Your task to perform on an android device: turn off location Image 0: 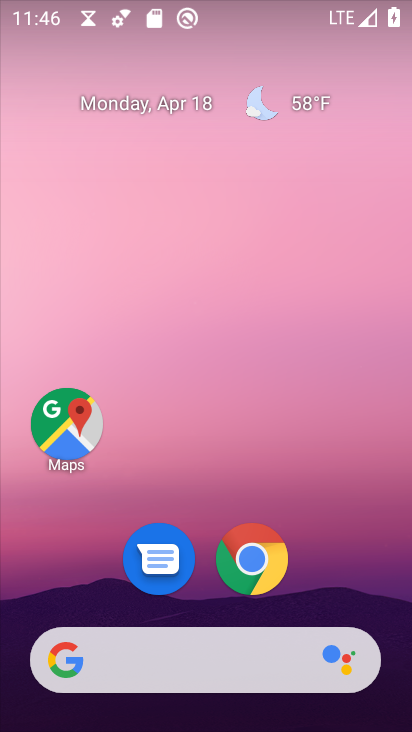
Step 0: drag from (267, 372) to (219, 43)
Your task to perform on an android device: turn off location Image 1: 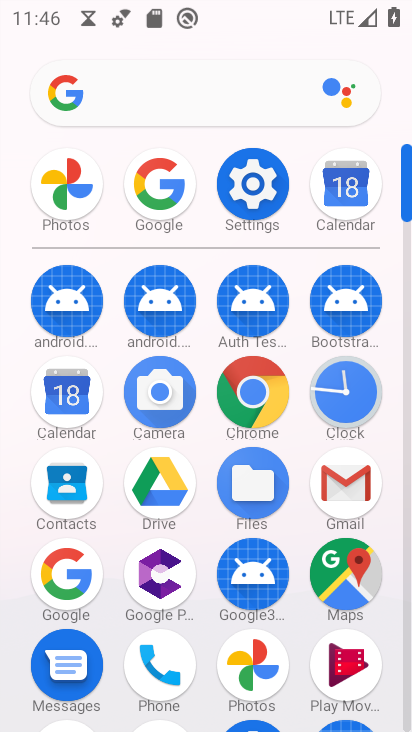
Step 1: click (258, 176)
Your task to perform on an android device: turn off location Image 2: 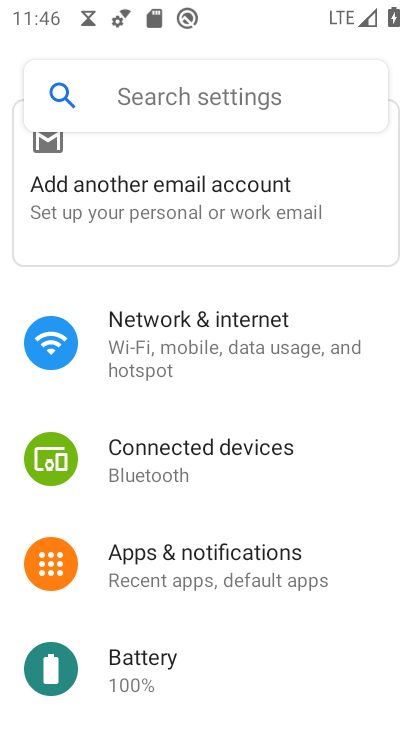
Step 2: drag from (137, 655) to (99, 162)
Your task to perform on an android device: turn off location Image 3: 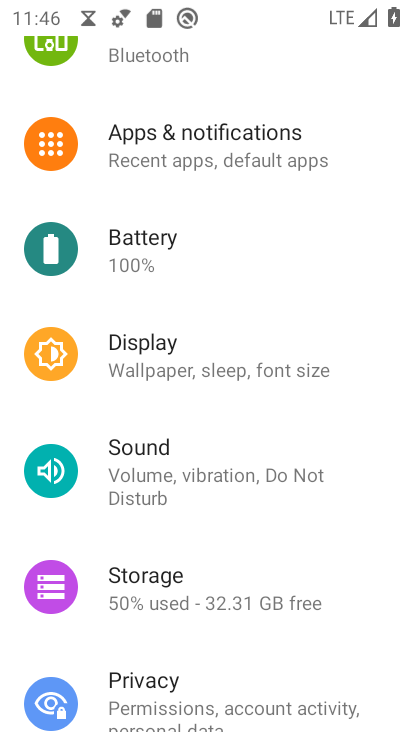
Step 3: drag from (150, 661) to (148, 175)
Your task to perform on an android device: turn off location Image 4: 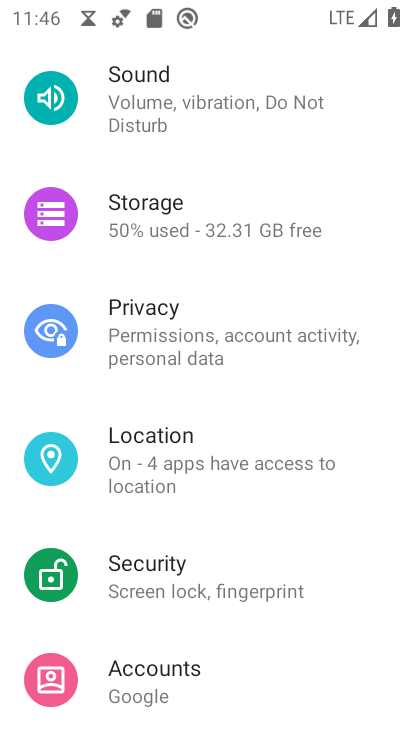
Step 4: click (146, 437)
Your task to perform on an android device: turn off location Image 5: 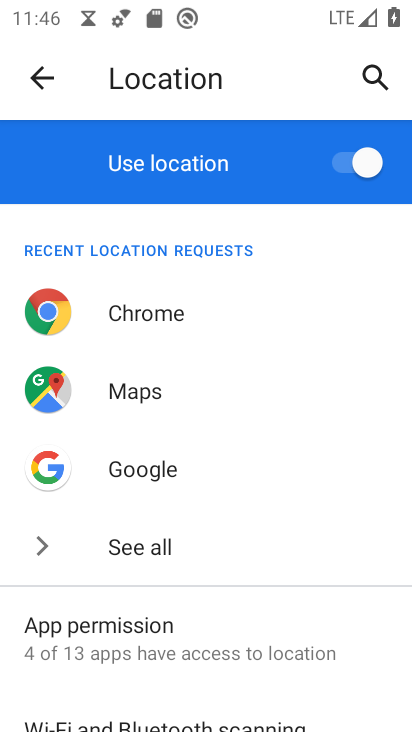
Step 5: click (368, 162)
Your task to perform on an android device: turn off location Image 6: 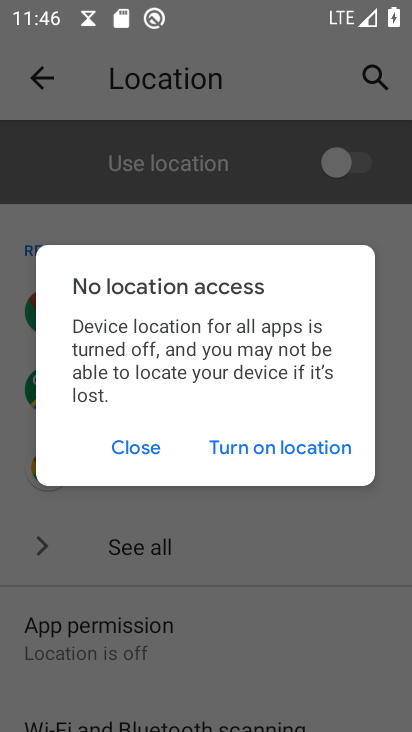
Step 6: task complete